Your task to perform on an android device: When is my next meeting? Image 0: 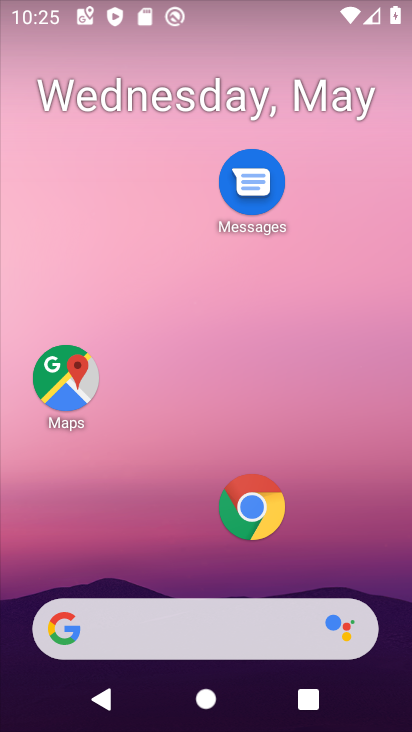
Step 0: press home button
Your task to perform on an android device: When is my next meeting? Image 1: 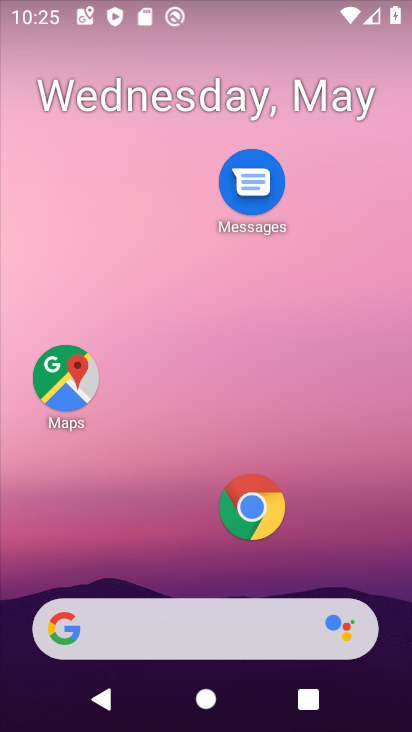
Step 1: click (250, 25)
Your task to perform on an android device: When is my next meeting? Image 2: 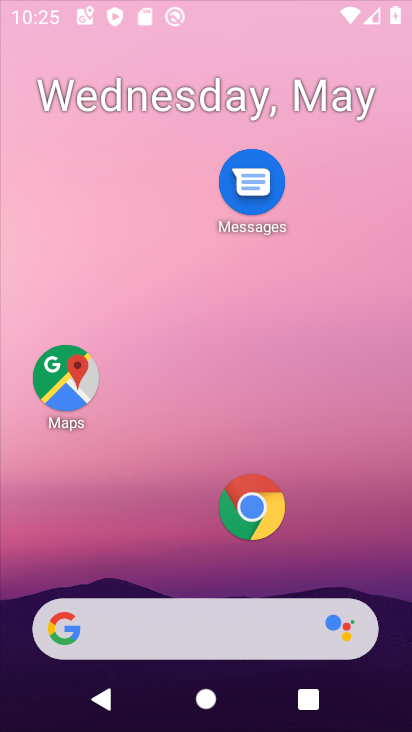
Step 2: drag from (185, 555) to (183, 81)
Your task to perform on an android device: When is my next meeting? Image 3: 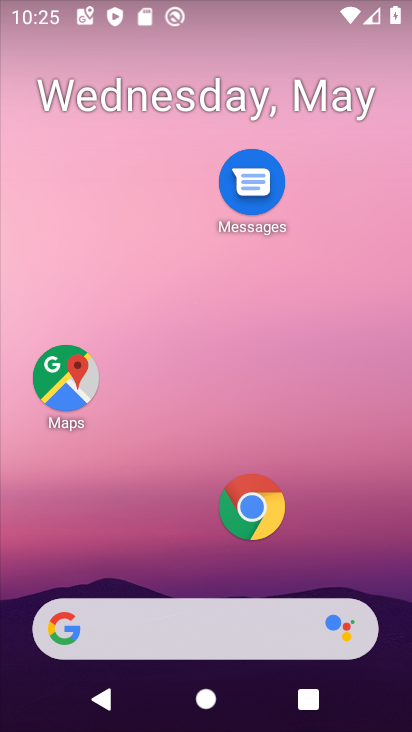
Step 3: drag from (179, 540) to (204, 61)
Your task to perform on an android device: When is my next meeting? Image 4: 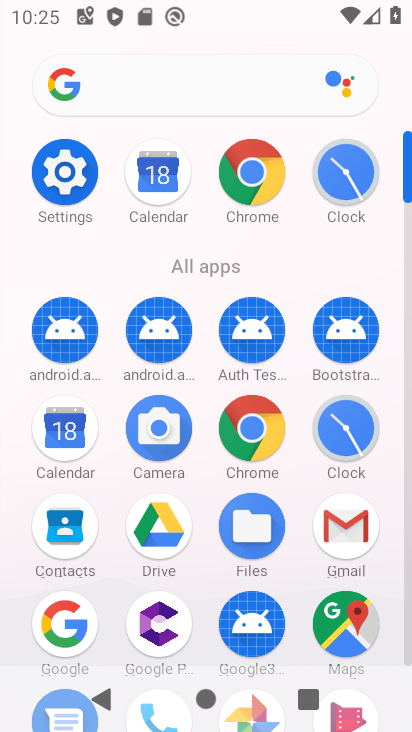
Step 4: click (158, 170)
Your task to perform on an android device: When is my next meeting? Image 5: 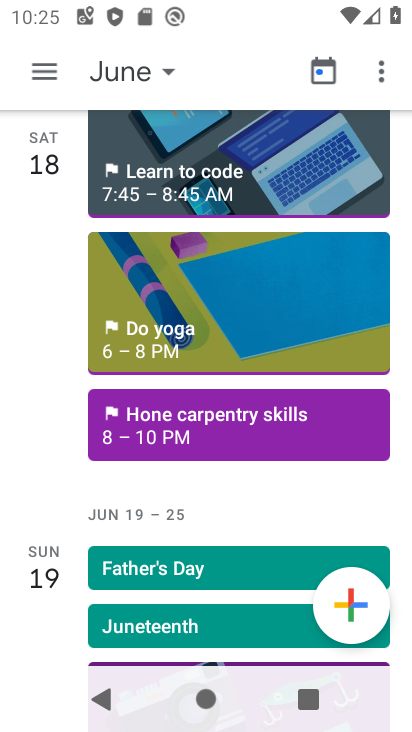
Step 5: click (164, 71)
Your task to perform on an android device: When is my next meeting? Image 6: 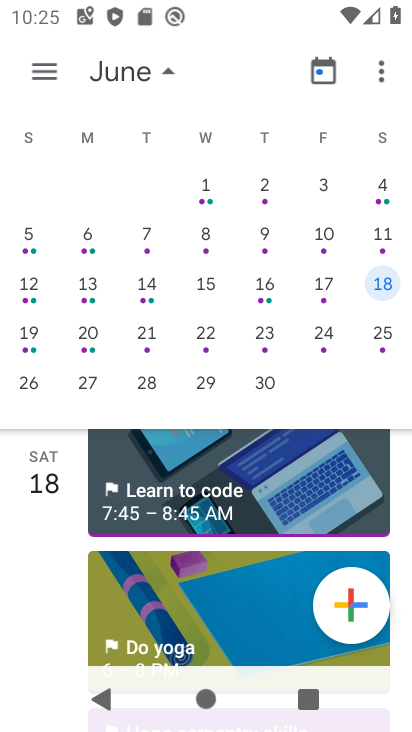
Step 6: drag from (39, 273) to (400, 272)
Your task to perform on an android device: When is my next meeting? Image 7: 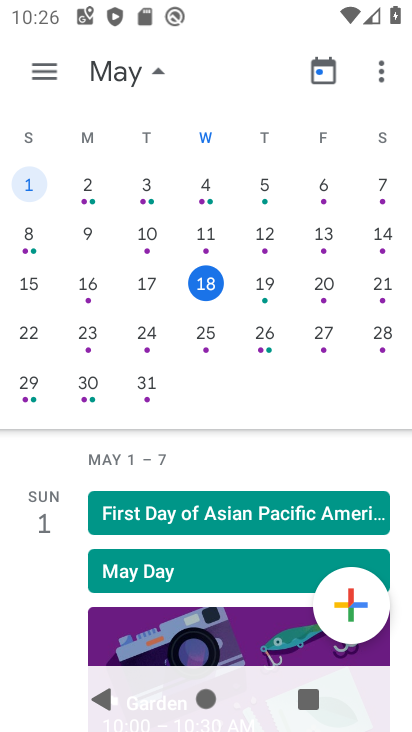
Step 7: click (210, 285)
Your task to perform on an android device: When is my next meeting? Image 8: 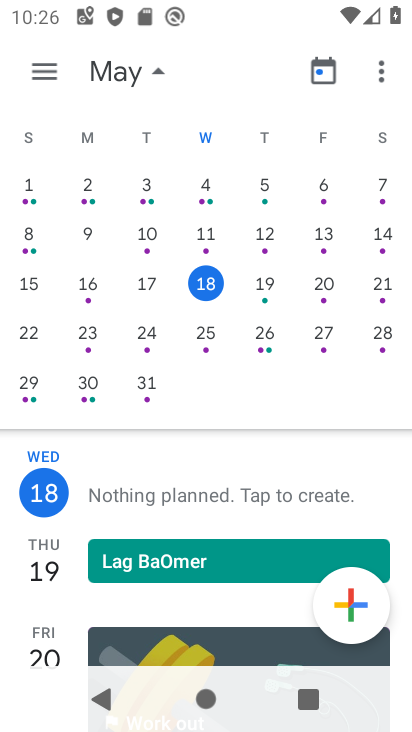
Step 8: click (156, 67)
Your task to perform on an android device: When is my next meeting? Image 9: 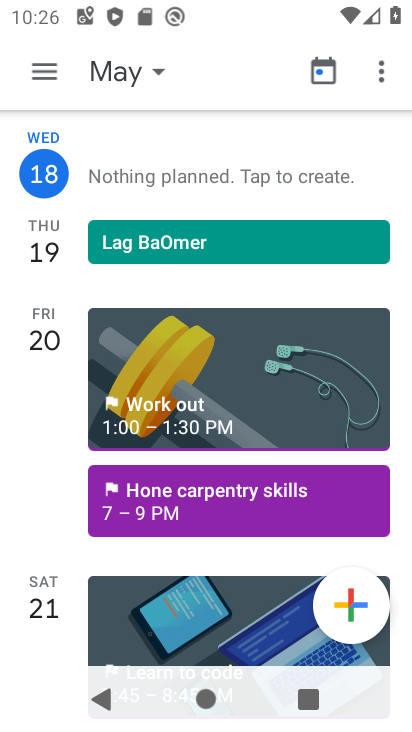
Step 9: task complete